Your task to perform on an android device: toggle pop-ups in chrome Image 0: 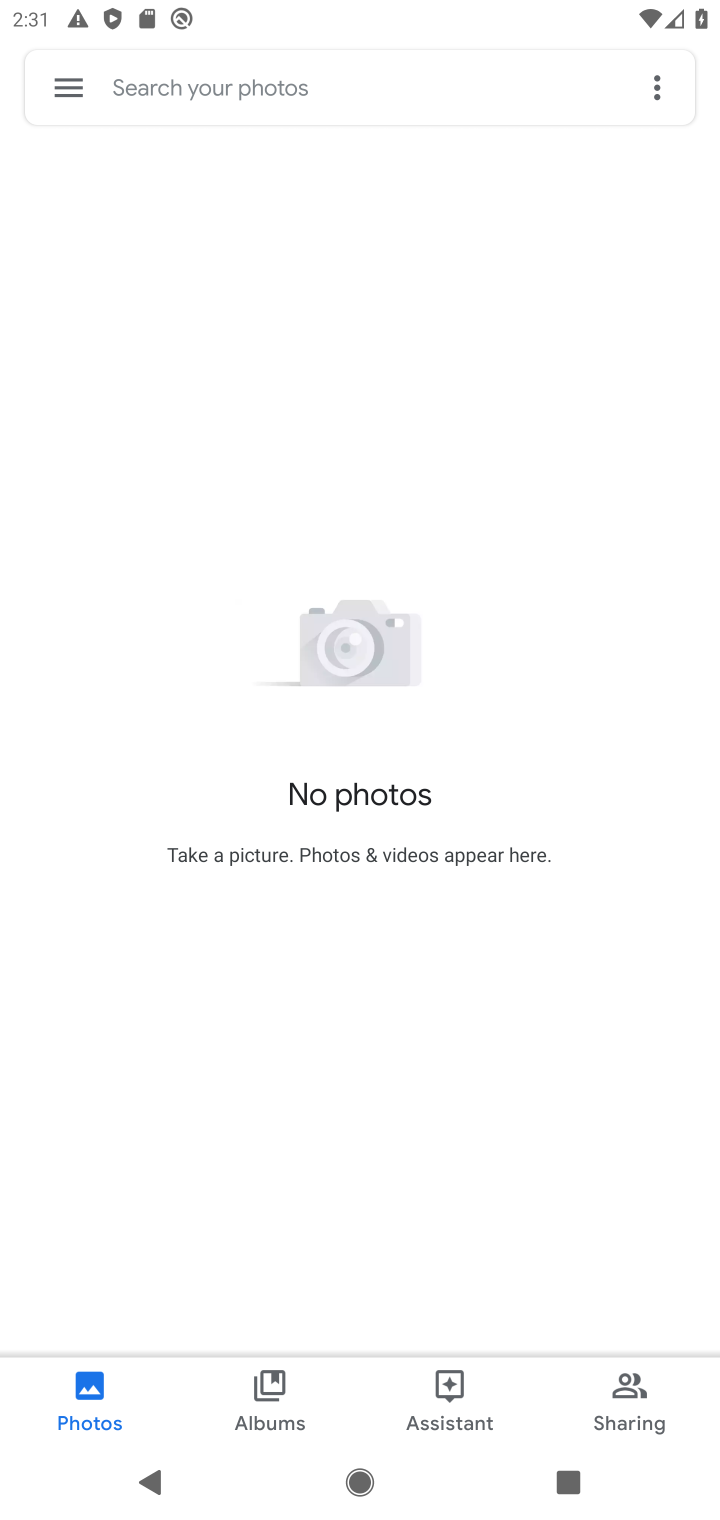
Step 0: press home button
Your task to perform on an android device: toggle pop-ups in chrome Image 1: 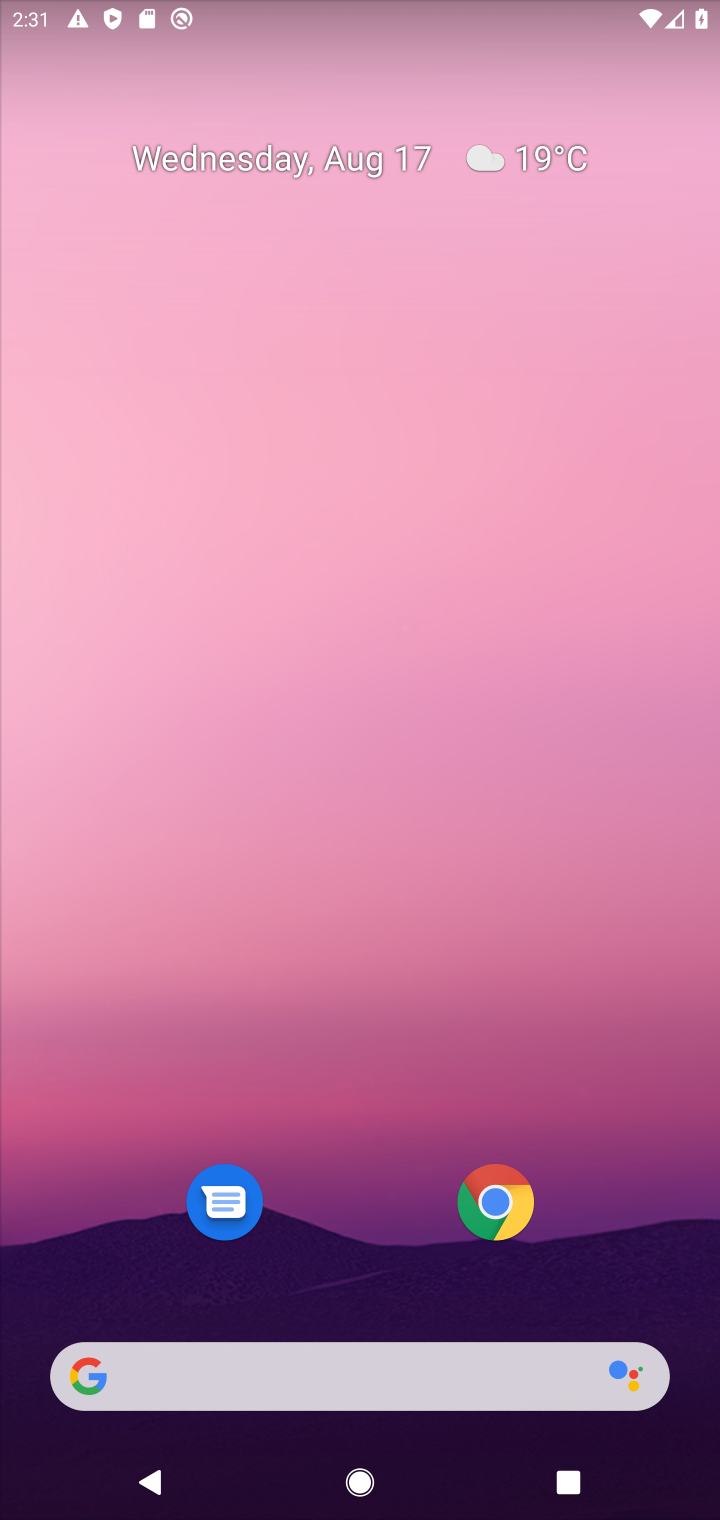
Step 1: drag from (344, 1223) to (598, 4)
Your task to perform on an android device: toggle pop-ups in chrome Image 2: 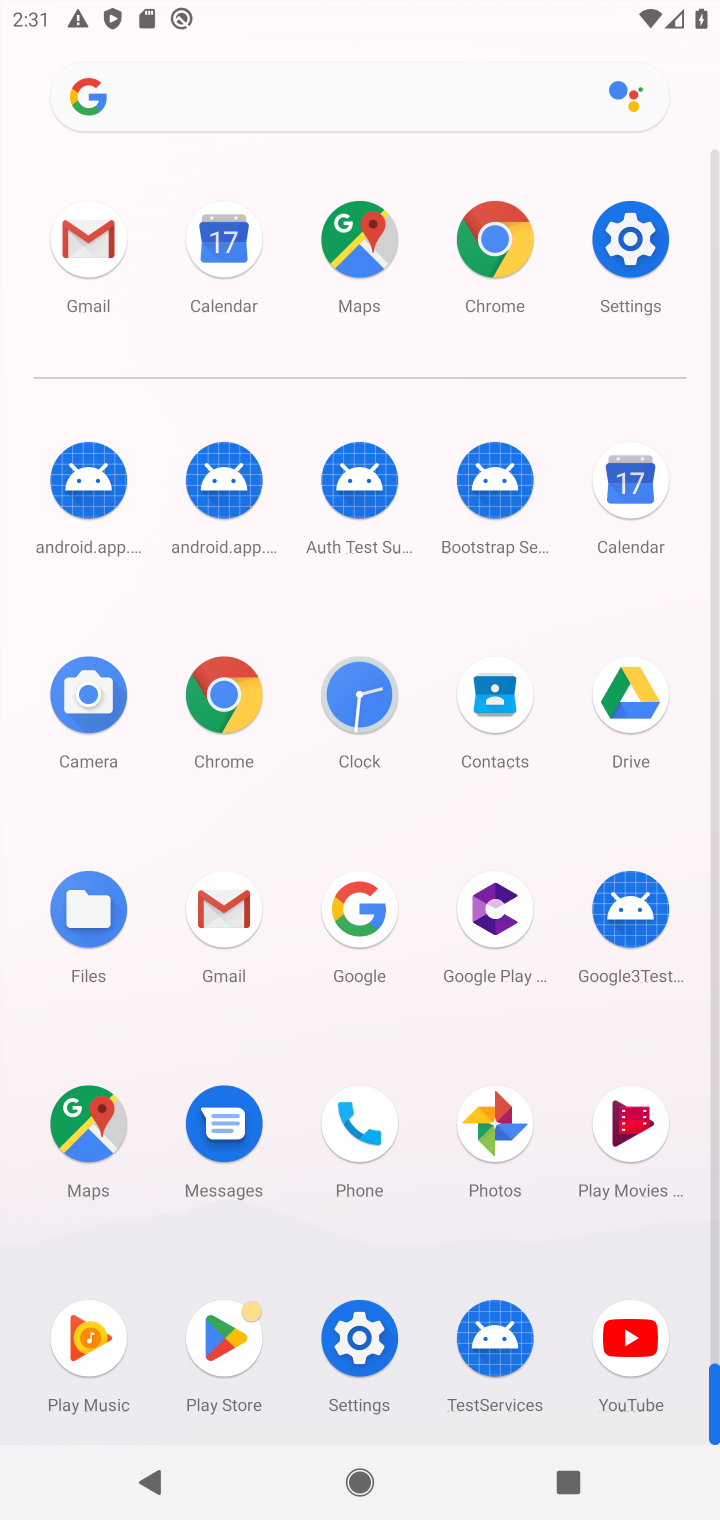
Step 2: click (230, 717)
Your task to perform on an android device: toggle pop-ups in chrome Image 3: 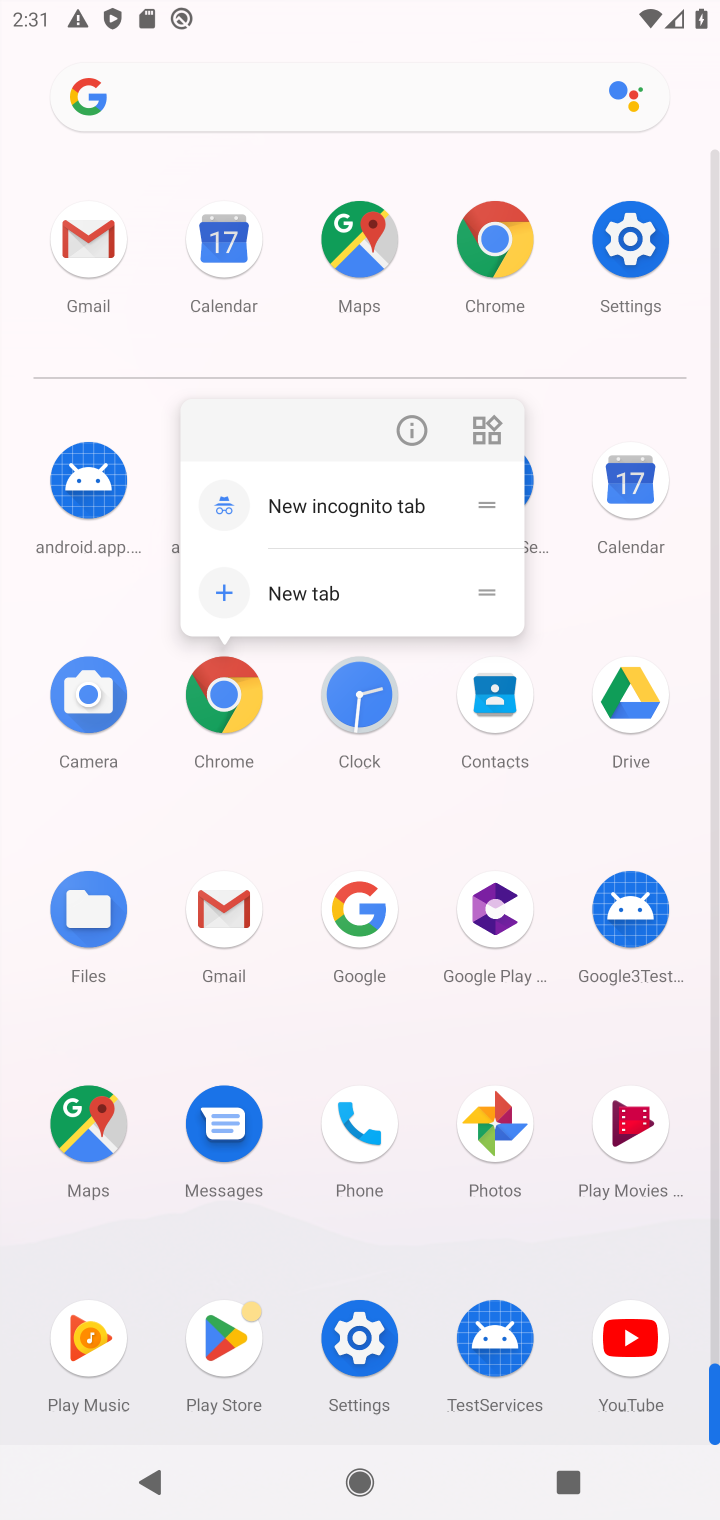
Step 3: click (236, 698)
Your task to perform on an android device: toggle pop-ups in chrome Image 4: 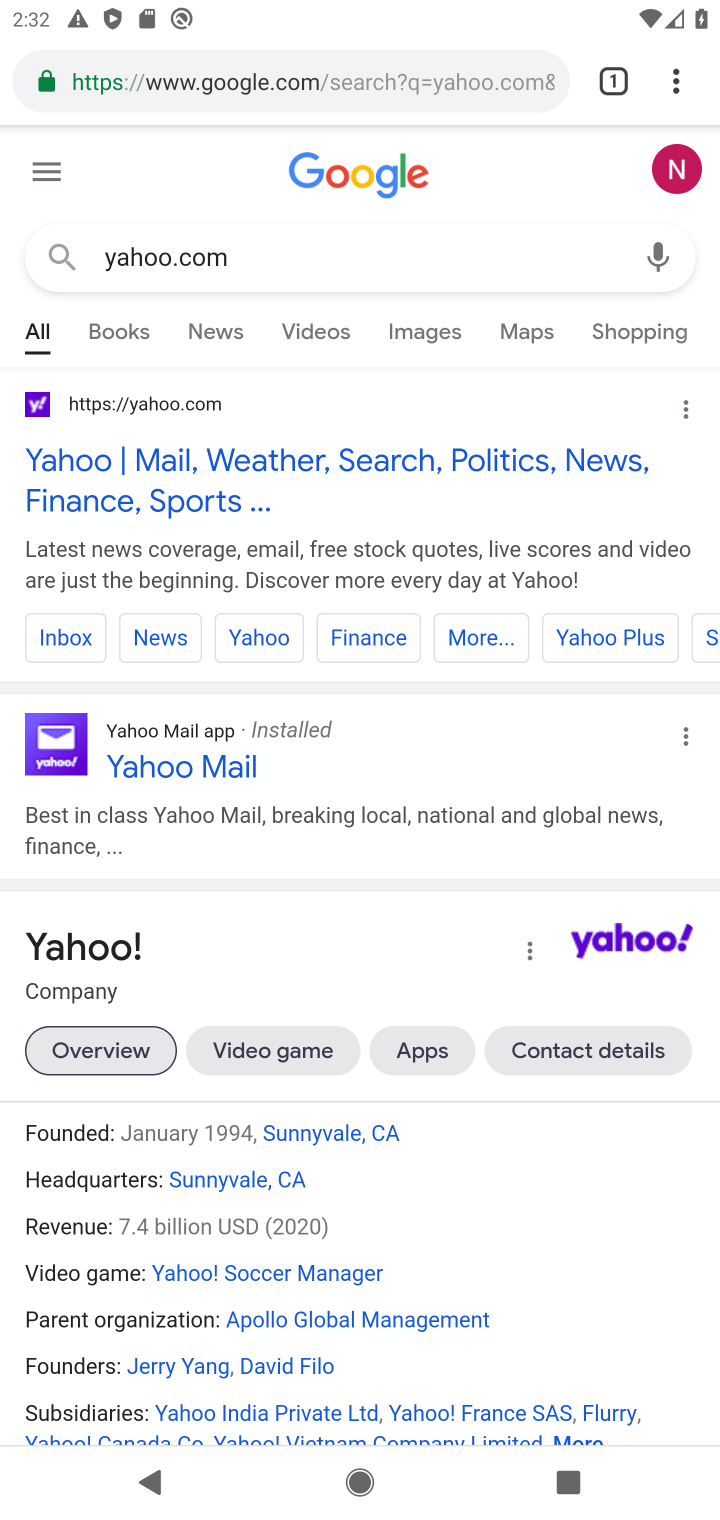
Step 4: click (677, 63)
Your task to perform on an android device: toggle pop-ups in chrome Image 5: 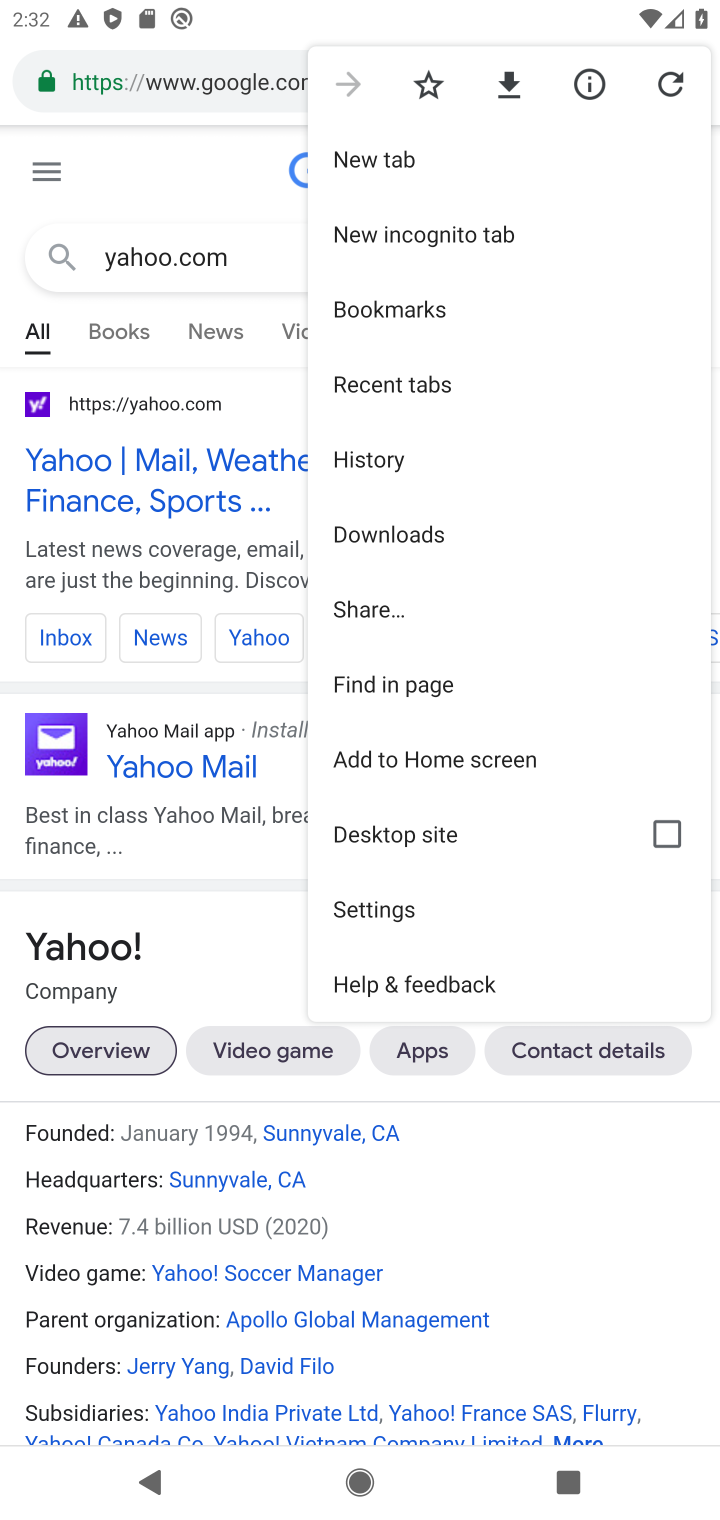
Step 5: click (381, 912)
Your task to perform on an android device: toggle pop-ups in chrome Image 6: 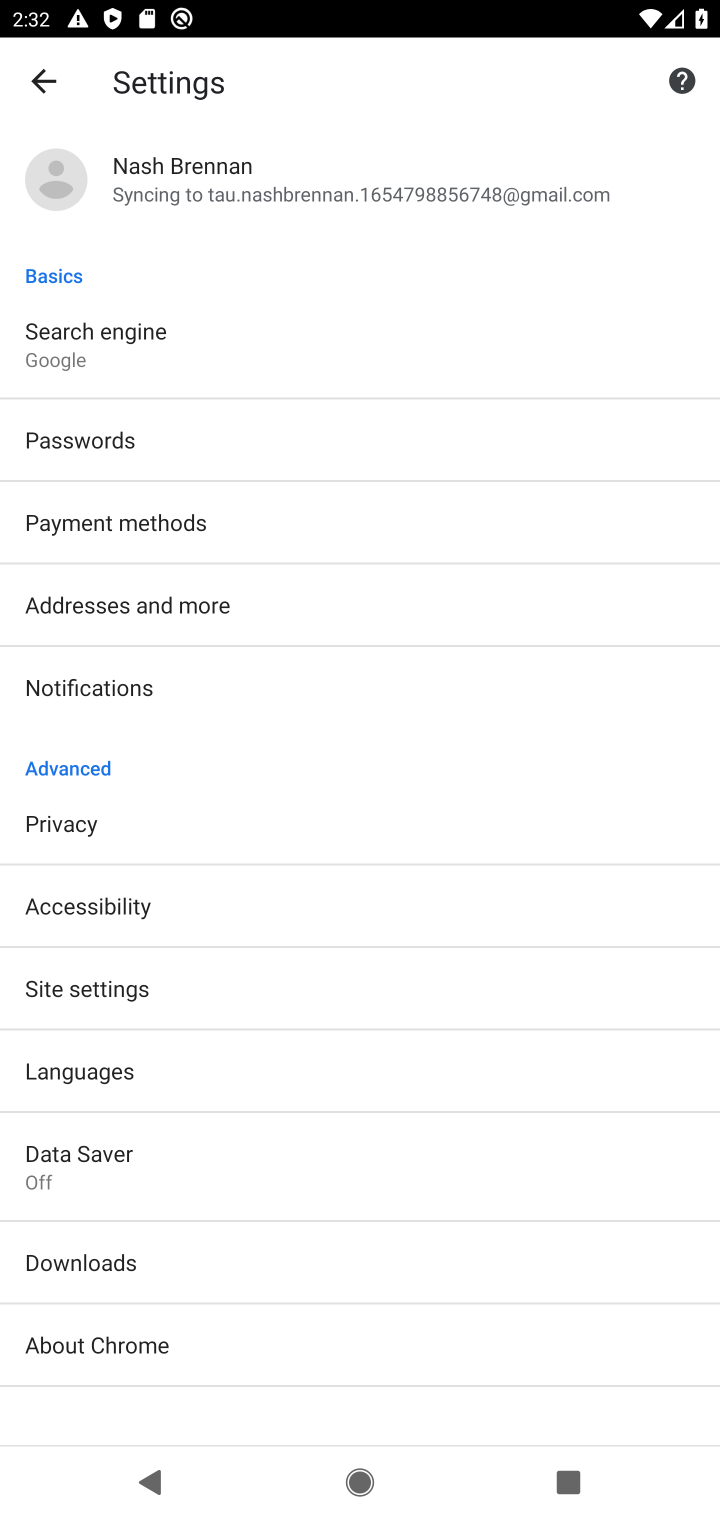
Step 6: click (113, 976)
Your task to perform on an android device: toggle pop-ups in chrome Image 7: 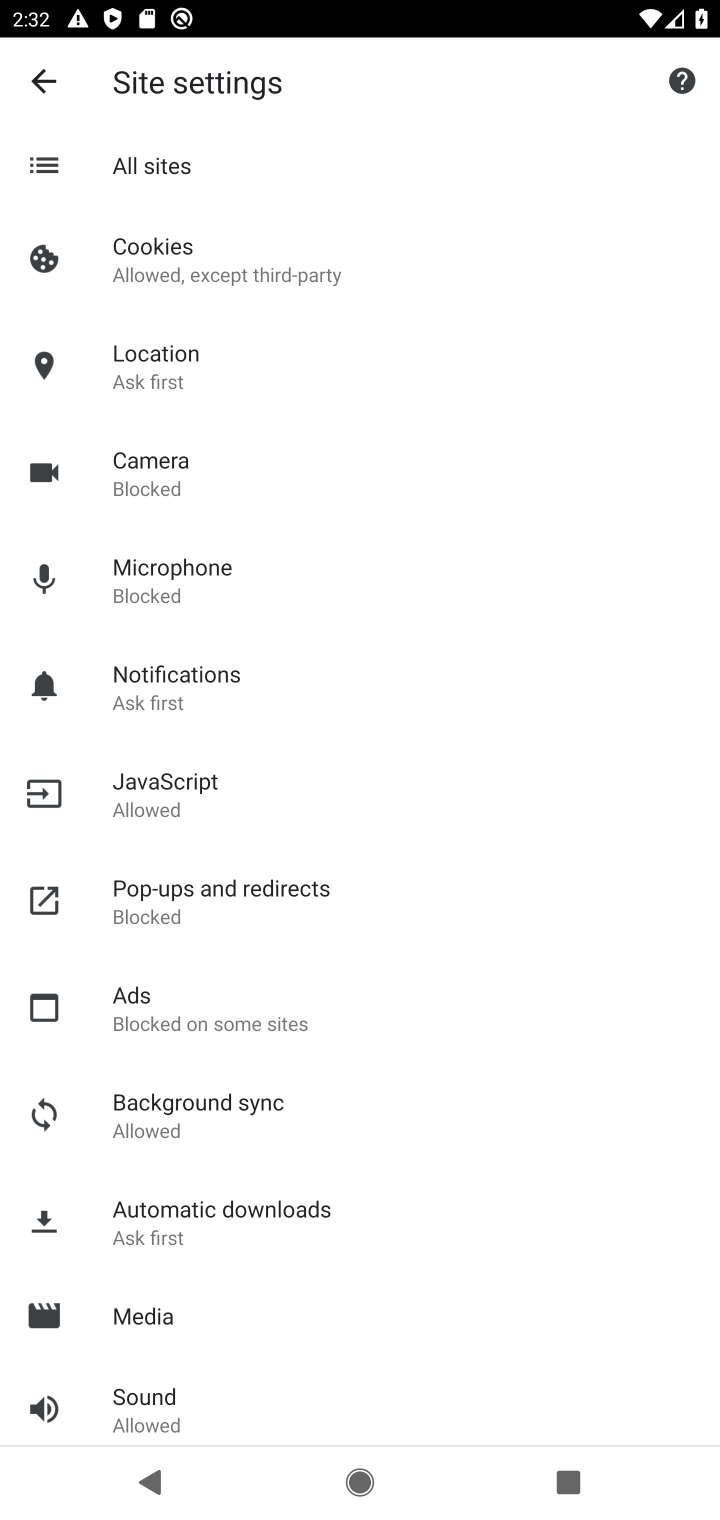
Step 7: click (204, 906)
Your task to perform on an android device: toggle pop-ups in chrome Image 8: 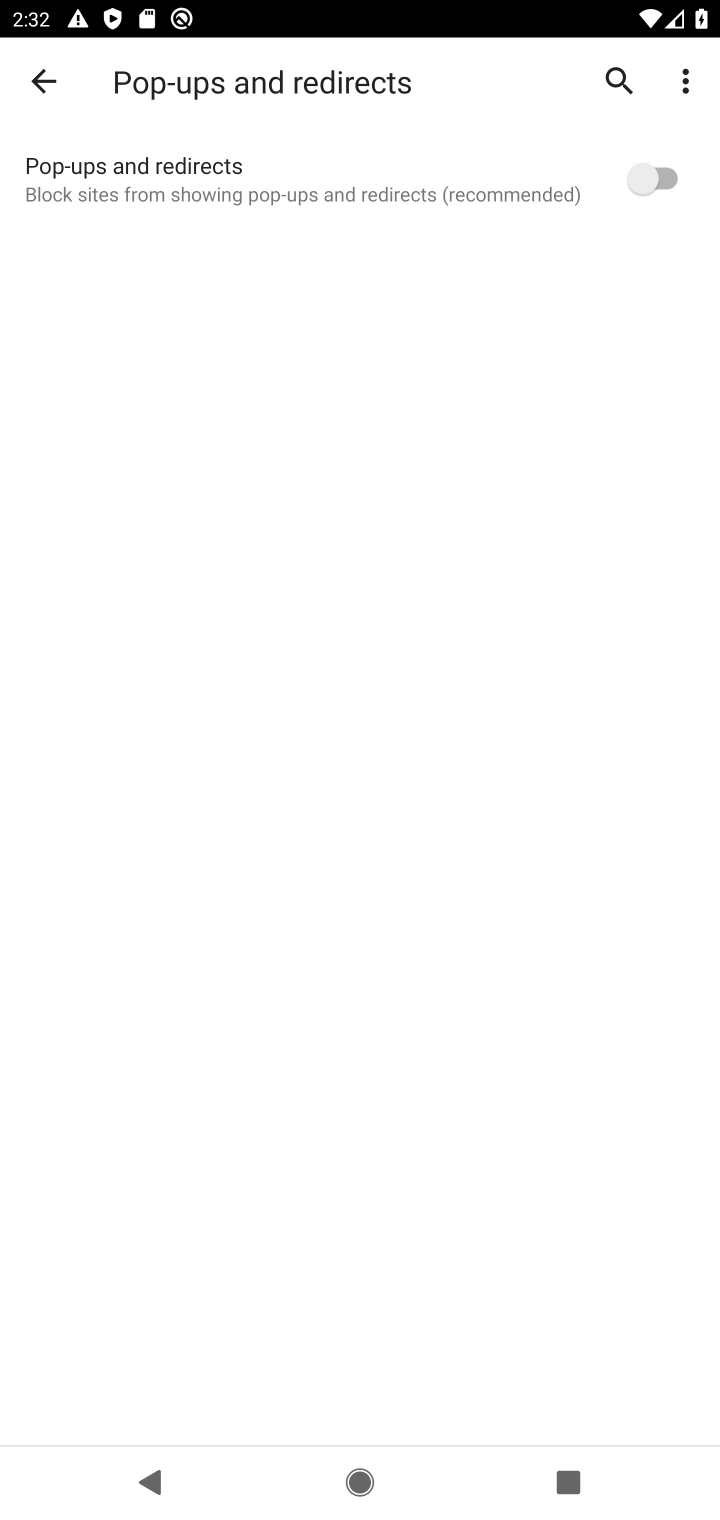
Step 8: click (665, 183)
Your task to perform on an android device: toggle pop-ups in chrome Image 9: 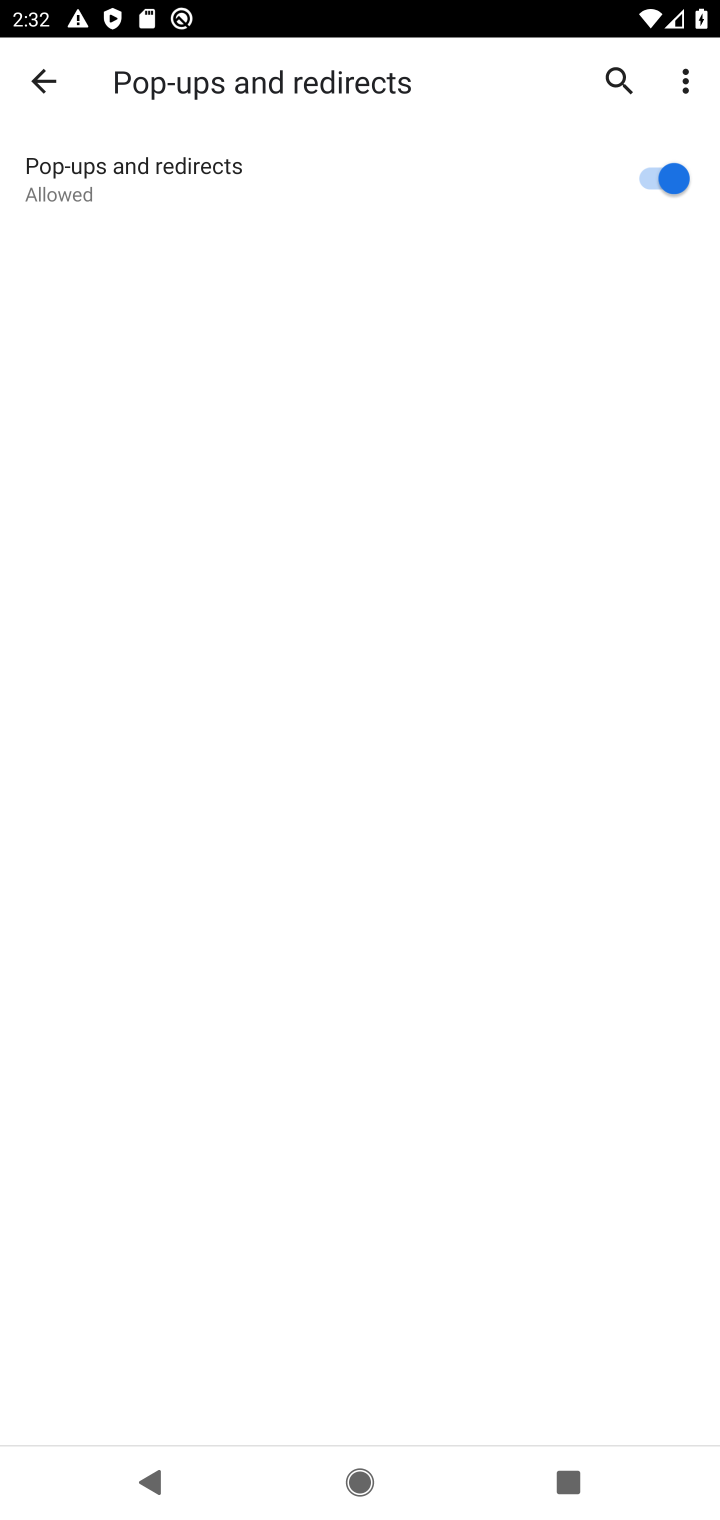
Step 9: task complete